Your task to perform on an android device: make emails show in primary in the gmail app Image 0: 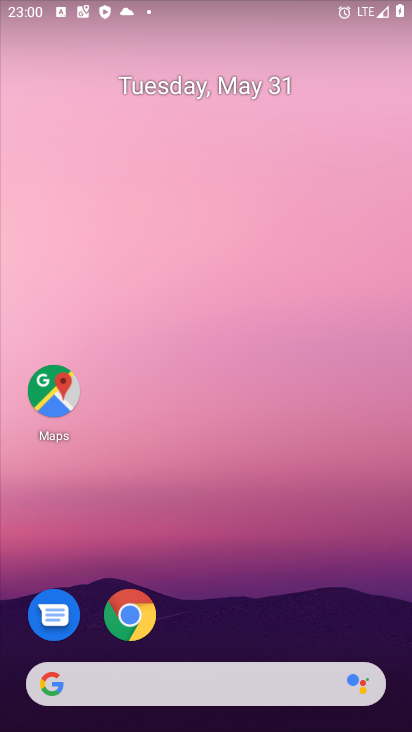
Step 0: drag from (334, 633) to (274, 70)
Your task to perform on an android device: make emails show in primary in the gmail app Image 1: 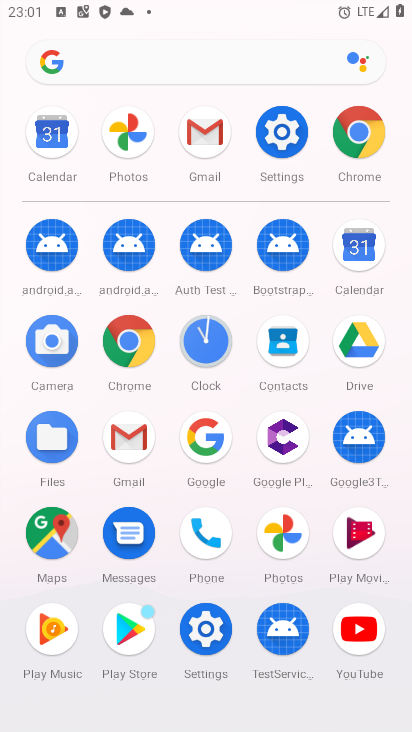
Step 1: click (124, 432)
Your task to perform on an android device: make emails show in primary in the gmail app Image 2: 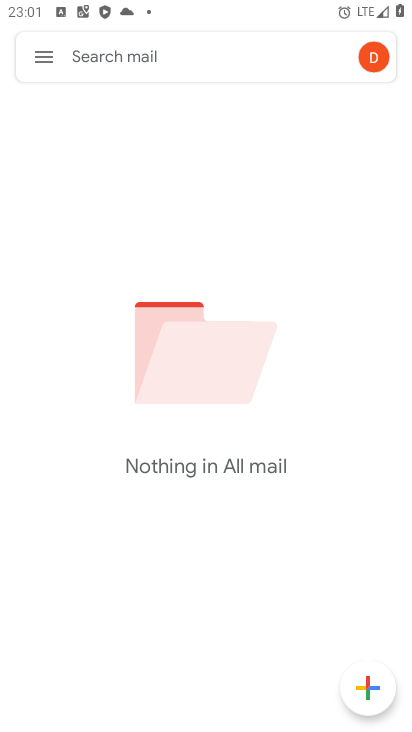
Step 2: click (40, 55)
Your task to perform on an android device: make emails show in primary in the gmail app Image 3: 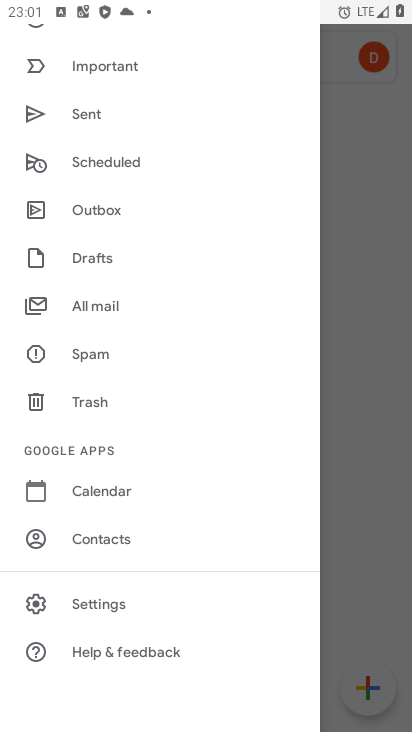
Step 3: click (104, 628)
Your task to perform on an android device: make emails show in primary in the gmail app Image 4: 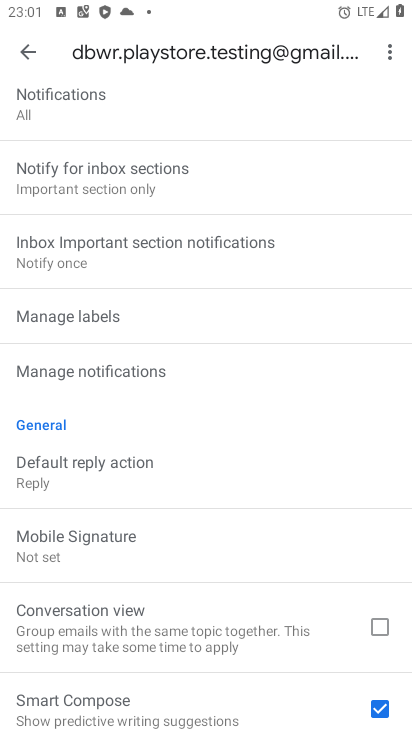
Step 4: drag from (234, 136) to (250, 394)
Your task to perform on an android device: make emails show in primary in the gmail app Image 5: 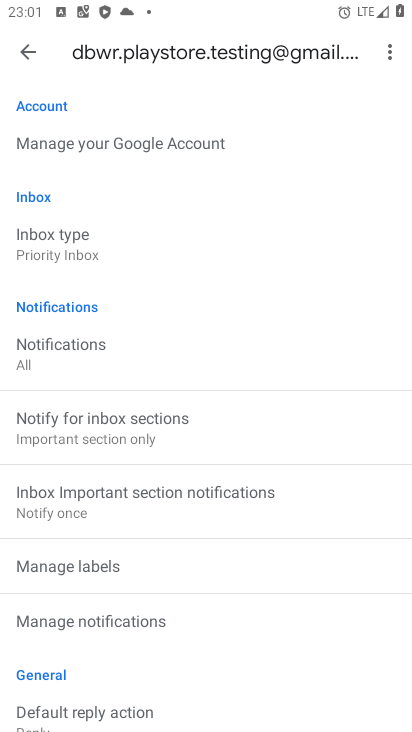
Step 5: click (48, 235)
Your task to perform on an android device: make emails show in primary in the gmail app Image 6: 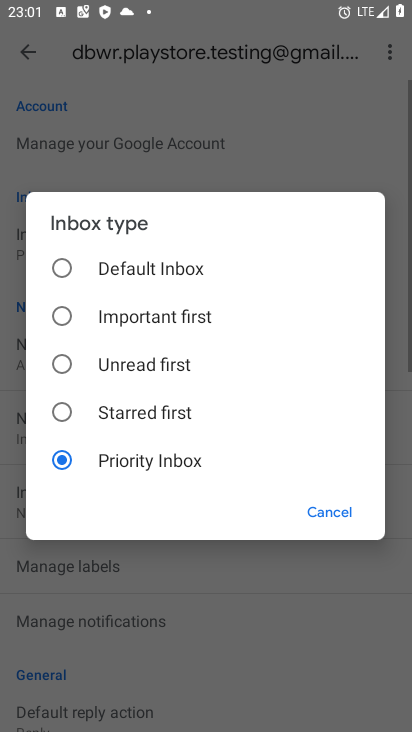
Step 6: click (57, 261)
Your task to perform on an android device: make emails show in primary in the gmail app Image 7: 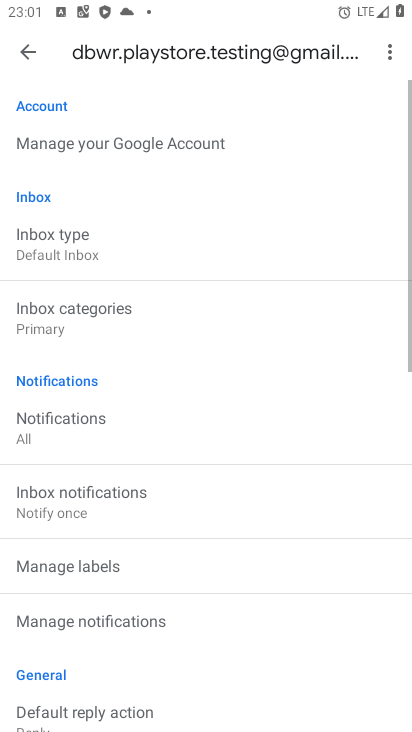
Step 7: click (75, 317)
Your task to perform on an android device: make emails show in primary in the gmail app Image 8: 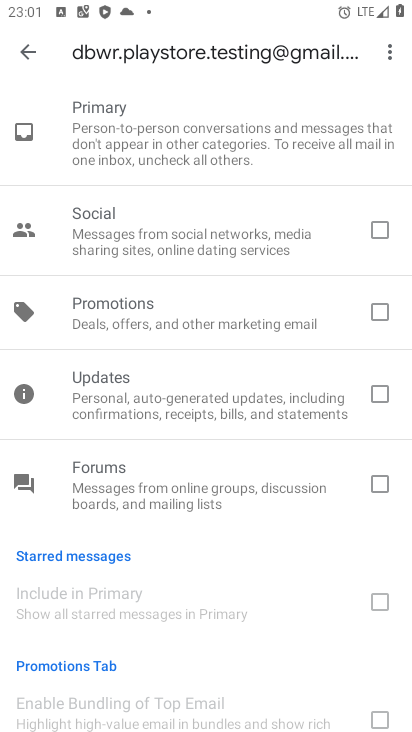
Step 8: task complete